Your task to perform on an android device: turn off sleep mode Image 0: 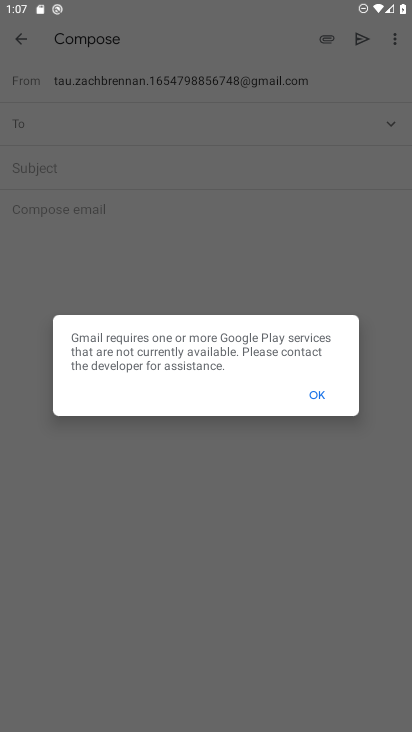
Step 0: press home button
Your task to perform on an android device: turn off sleep mode Image 1: 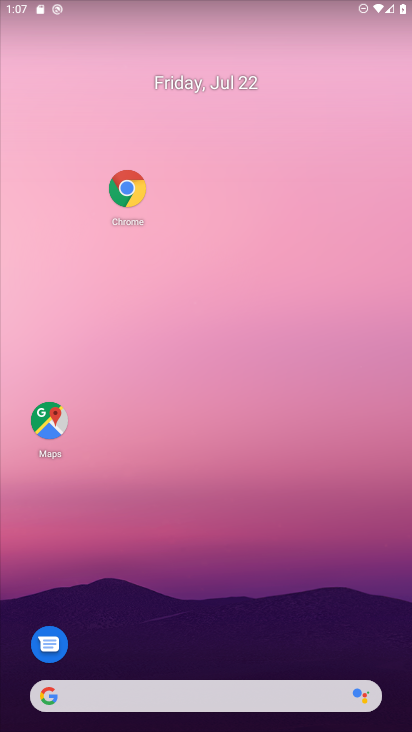
Step 1: drag from (329, 247) to (268, 0)
Your task to perform on an android device: turn off sleep mode Image 2: 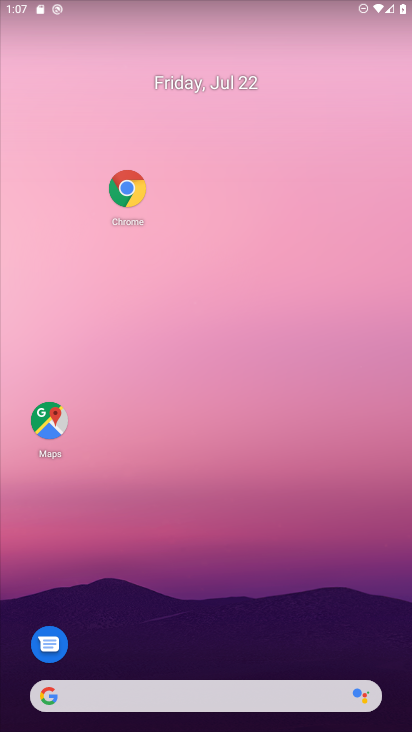
Step 2: drag from (144, 642) to (202, 30)
Your task to perform on an android device: turn off sleep mode Image 3: 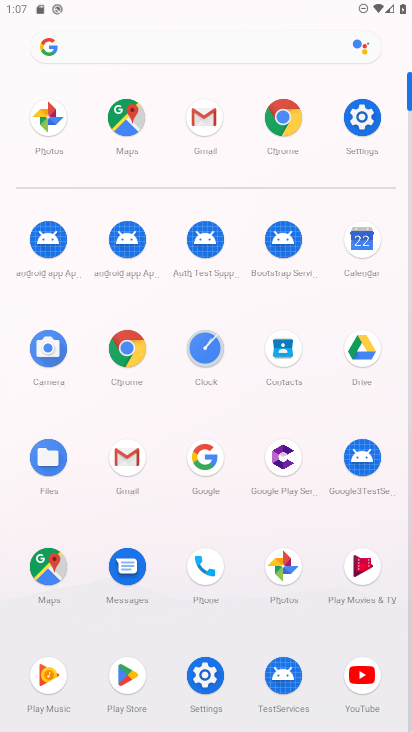
Step 3: click (352, 167)
Your task to perform on an android device: turn off sleep mode Image 4: 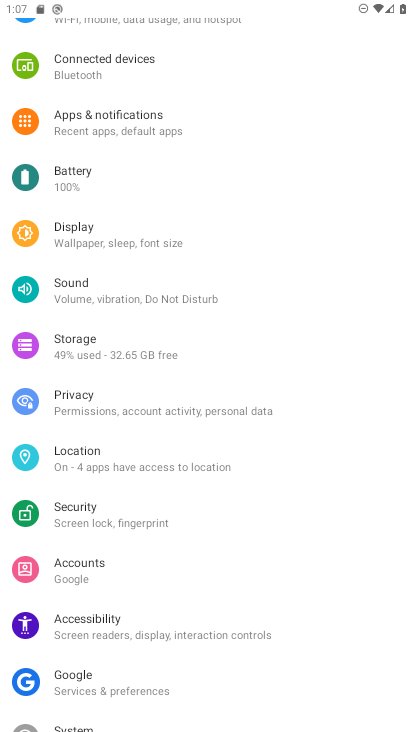
Step 4: task complete